Your task to perform on an android device: Open the stopwatch Image 0: 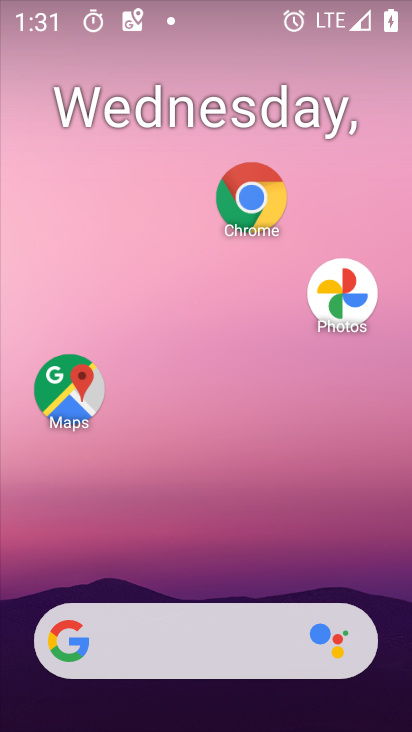
Step 0: drag from (243, 635) to (275, 206)
Your task to perform on an android device: Open the stopwatch Image 1: 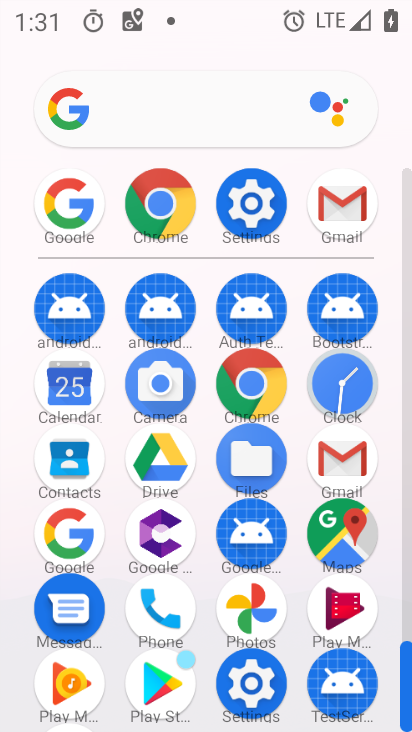
Step 1: click (354, 405)
Your task to perform on an android device: Open the stopwatch Image 2: 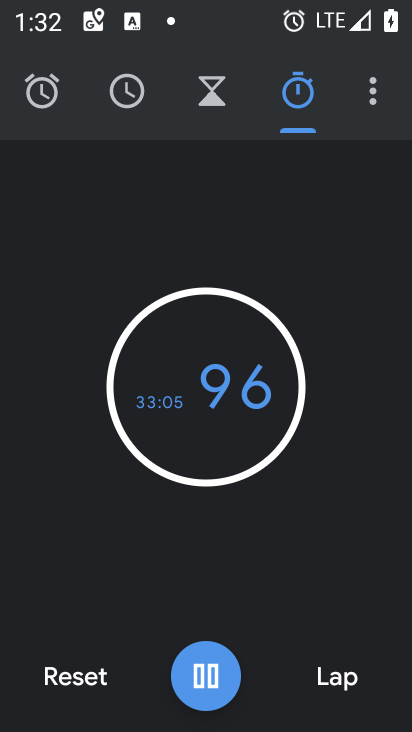
Step 2: task complete